Your task to perform on an android device: toggle pop-ups in chrome Image 0: 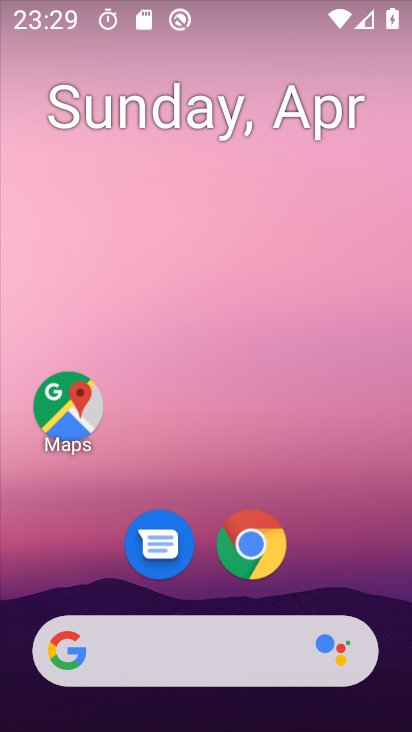
Step 0: drag from (348, 535) to (352, 229)
Your task to perform on an android device: toggle pop-ups in chrome Image 1: 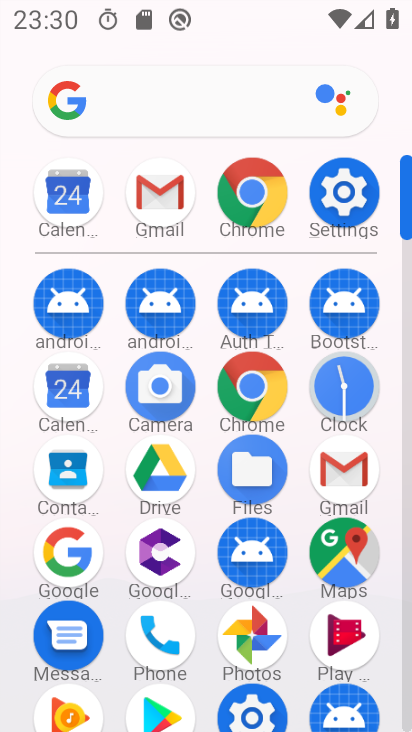
Step 1: click (240, 184)
Your task to perform on an android device: toggle pop-ups in chrome Image 2: 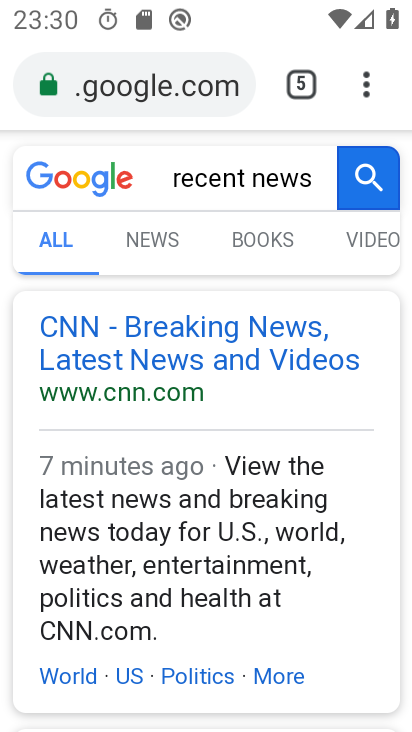
Step 2: click (359, 89)
Your task to perform on an android device: toggle pop-ups in chrome Image 3: 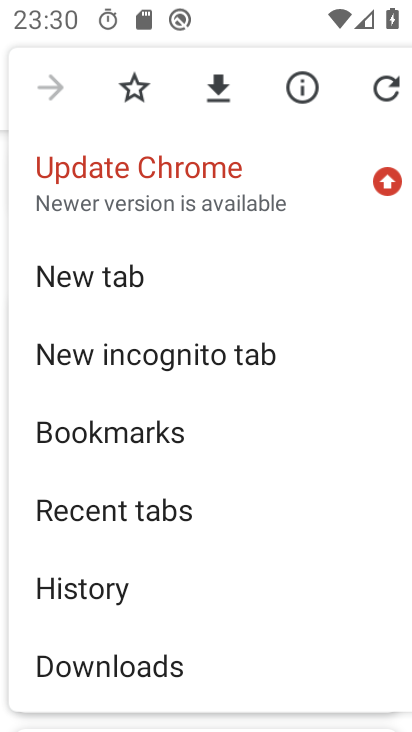
Step 3: drag from (185, 618) to (260, 191)
Your task to perform on an android device: toggle pop-ups in chrome Image 4: 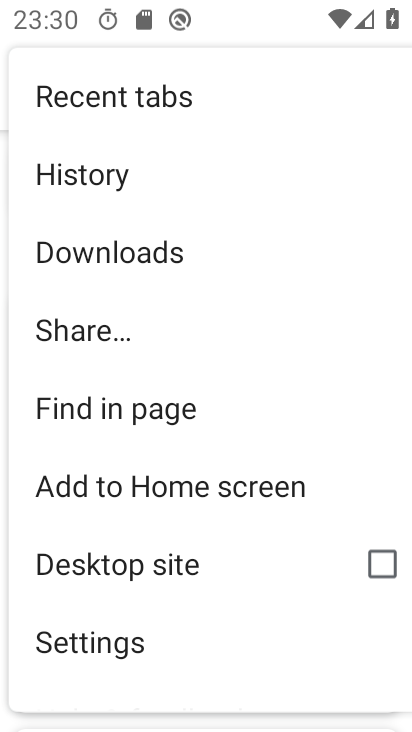
Step 4: click (146, 652)
Your task to perform on an android device: toggle pop-ups in chrome Image 5: 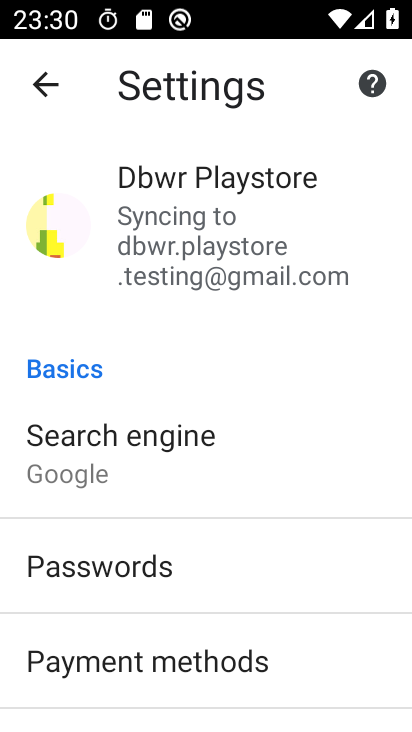
Step 5: drag from (236, 657) to (310, 187)
Your task to perform on an android device: toggle pop-ups in chrome Image 6: 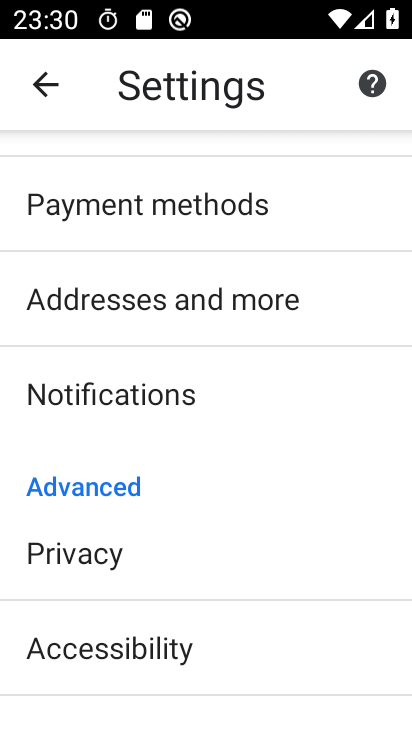
Step 6: drag from (232, 592) to (298, 188)
Your task to perform on an android device: toggle pop-ups in chrome Image 7: 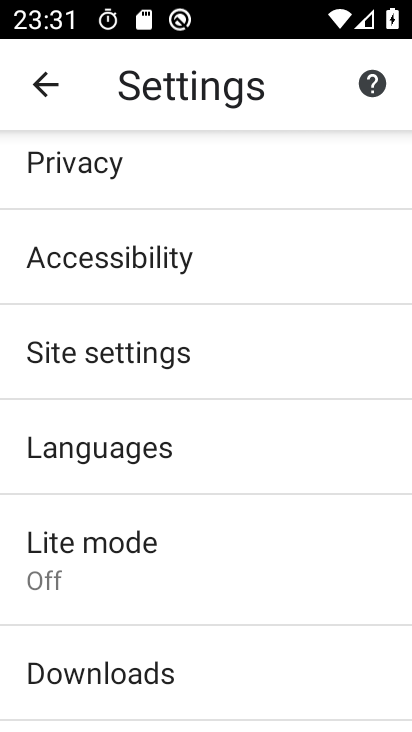
Step 7: drag from (209, 639) to (253, 342)
Your task to perform on an android device: toggle pop-ups in chrome Image 8: 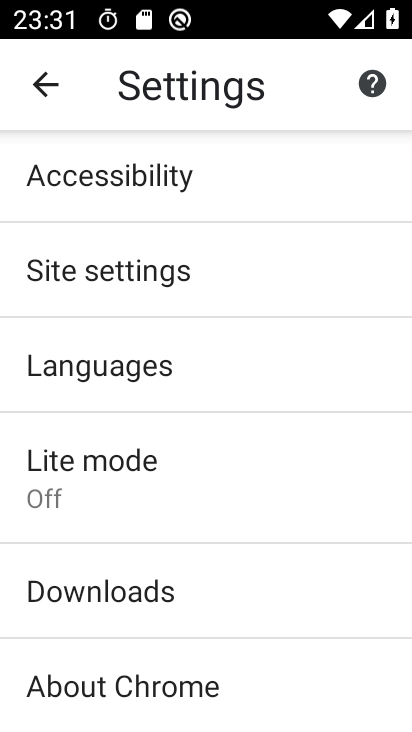
Step 8: click (221, 265)
Your task to perform on an android device: toggle pop-ups in chrome Image 9: 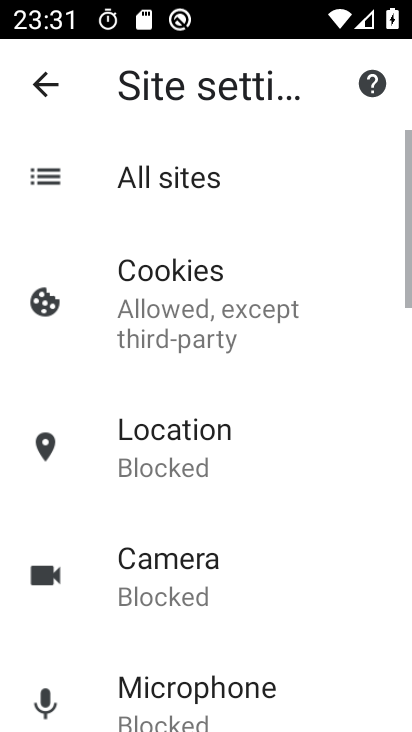
Step 9: drag from (269, 609) to (288, 190)
Your task to perform on an android device: toggle pop-ups in chrome Image 10: 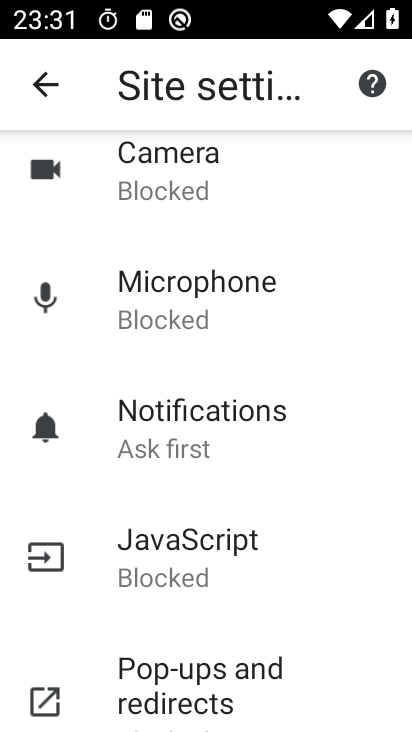
Step 10: click (210, 669)
Your task to perform on an android device: toggle pop-ups in chrome Image 11: 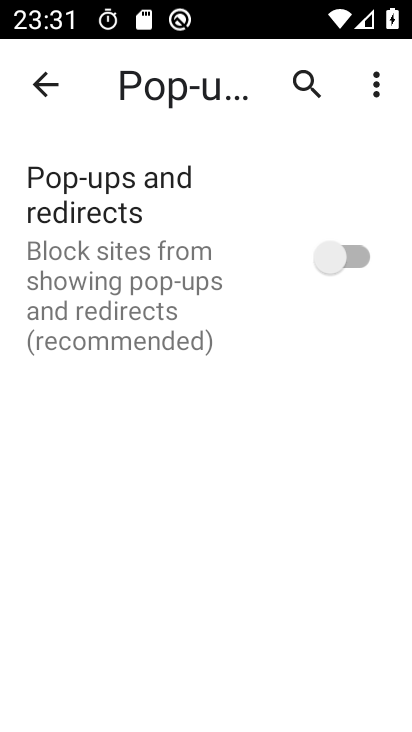
Step 11: click (340, 252)
Your task to perform on an android device: toggle pop-ups in chrome Image 12: 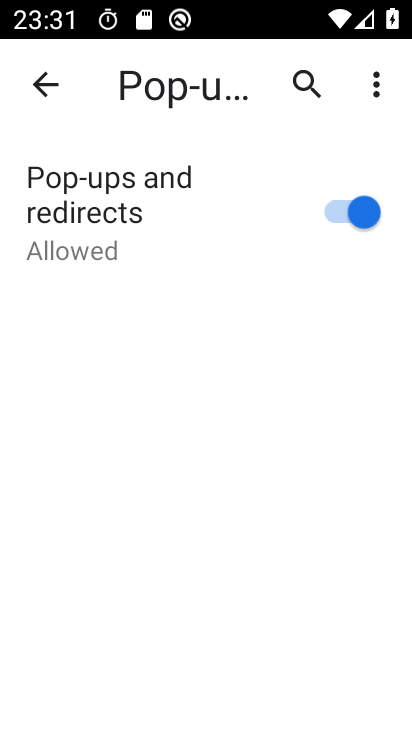
Step 12: task complete